Your task to perform on an android device: Open the calendar and show me this week's events? Image 0: 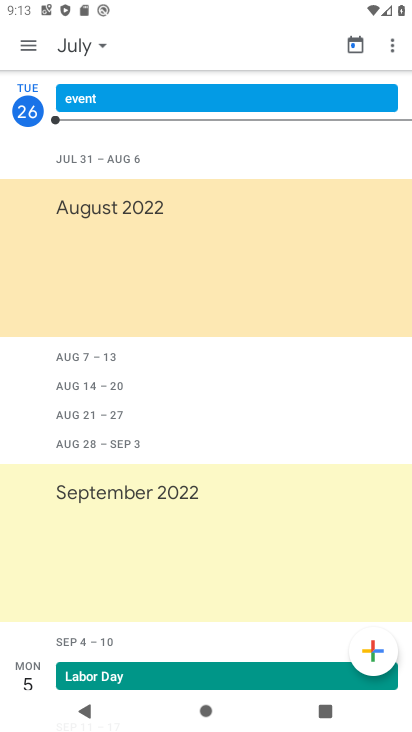
Step 0: click (16, 43)
Your task to perform on an android device: Open the calendar and show me this week's events? Image 1: 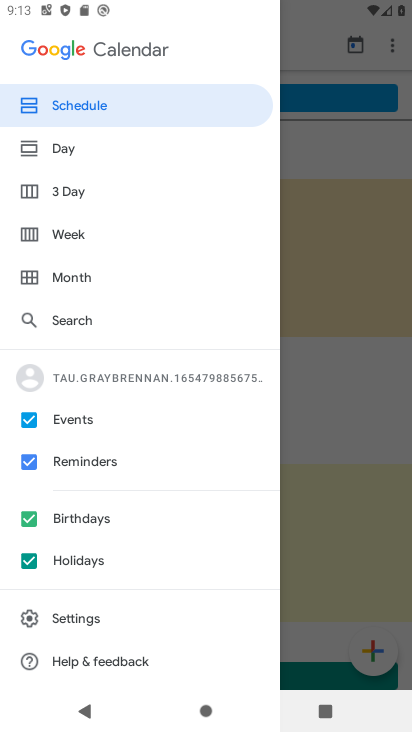
Step 1: click (33, 465)
Your task to perform on an android device: Open the calendar and show me this week's events? Image 2: 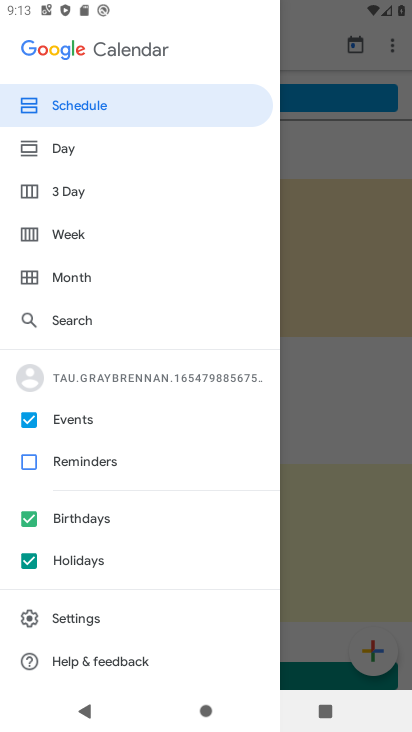
Step 2: click (32, 527)
Your task to perform on an android device: Open the calendar and show me this week's events? Image 3: 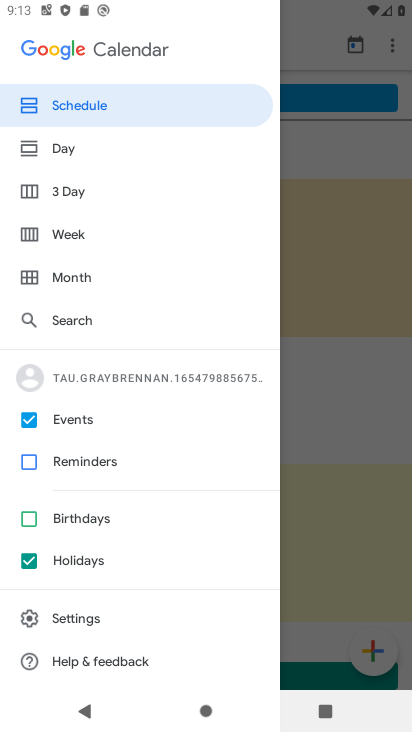
Step 3: click (21, 567)
Your task to perform on an android device: Open the calendar and show me this week's events? Image 4: 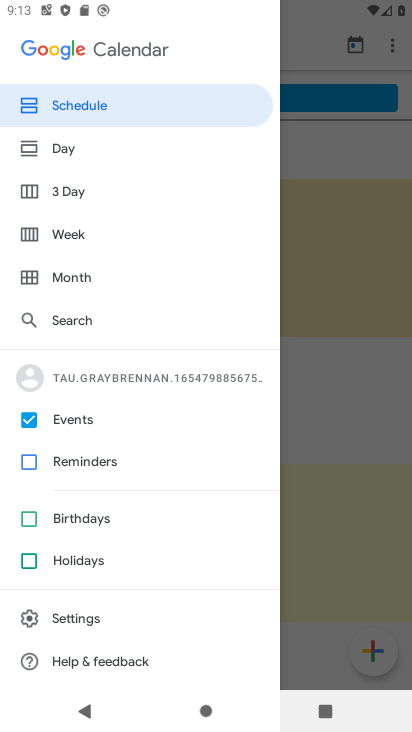
Step 4: click (53, 236)
Your task to perform on an android device: Open the calendar and show me this week's events? Image 5: 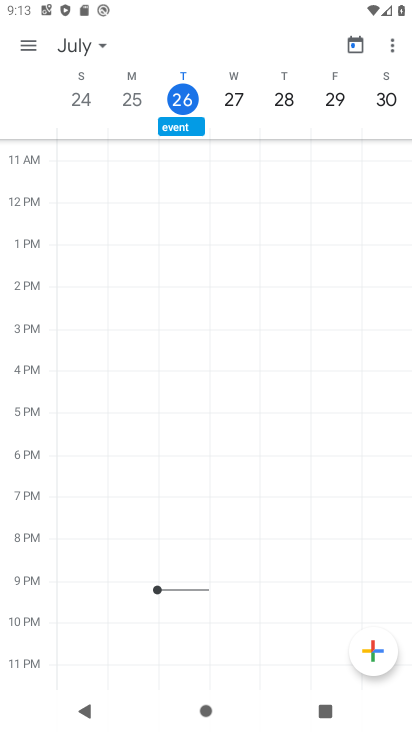
Step 5: task complete